Your task to perform on an android device: Open accessibility settings Image 0: 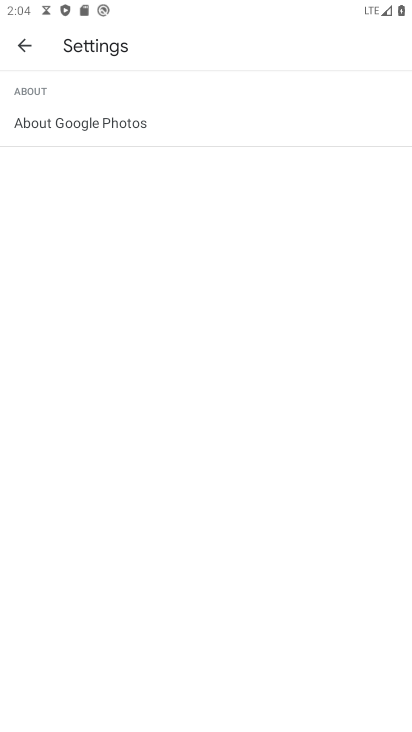
Step 0: press home button
Your task to perform on an android device: Open accessibility settings Image 1: 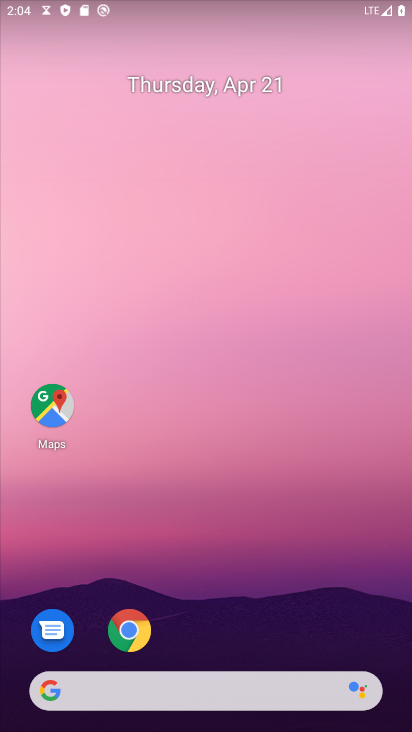
Step 1: drag from (357, 658) to (331, 6)
Your task to perform on an android device: Open accessibility settings Image 2: 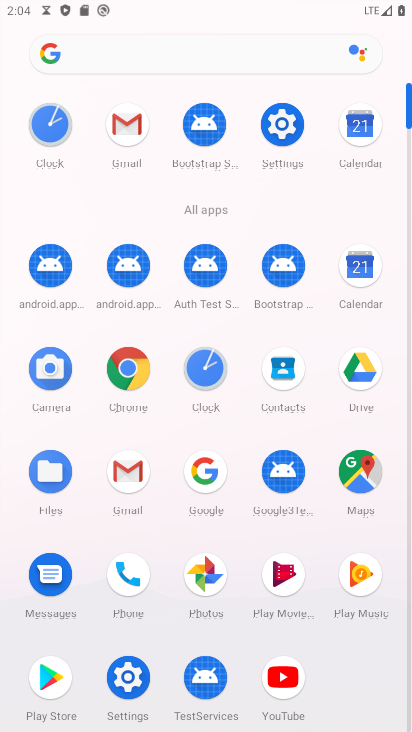
Step 2: click (274, 127)
Your task to perform on an android device: Open accessibility settings Image 3: 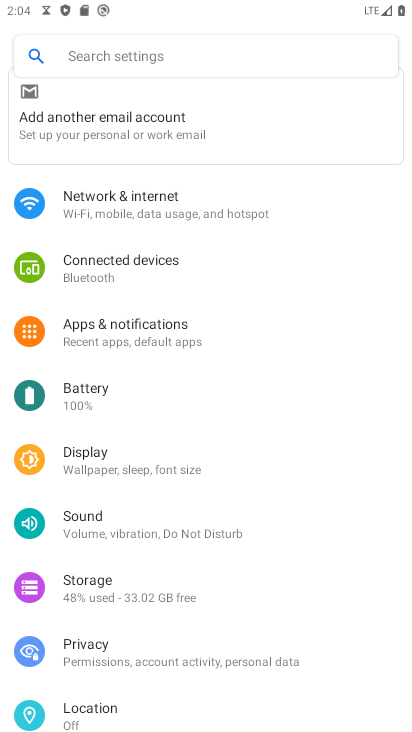
Step 3: drag from (339, 605) to (338, 275)
Your task to perform on an android device: Open accessibility settings Image 4: 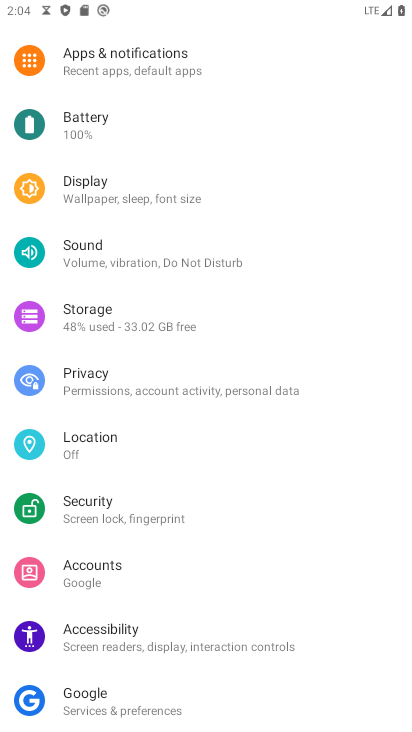
Step 4: click (100, 639)
Your task to perform on an android device: Open accessibility settings Image 5: 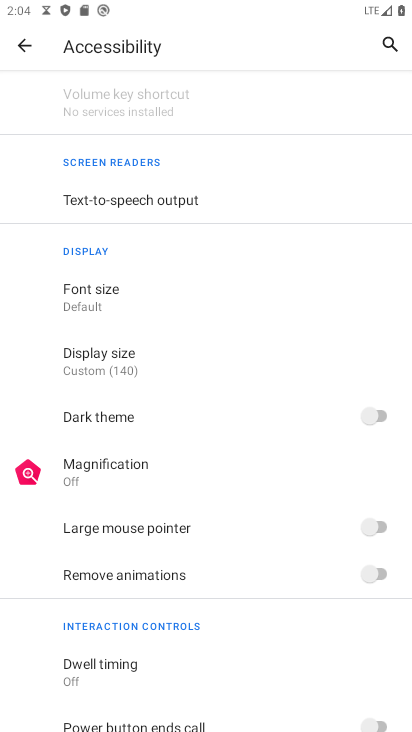
Step 5: task complete